Your task to perform on an android device: turn on location history Image 0: 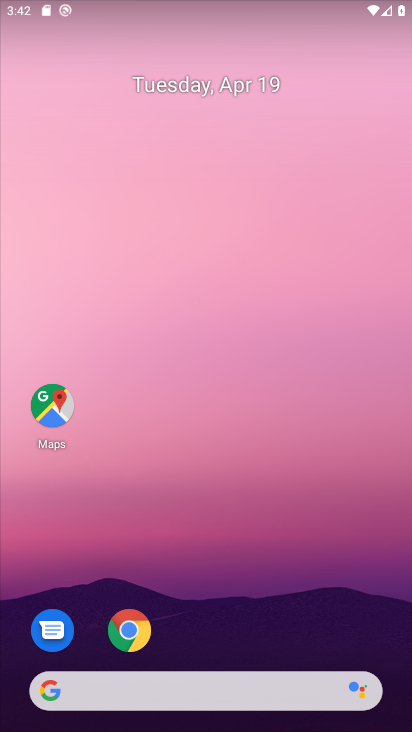
Step 0: drag from (292, 432) to (316, 140)
Your task to perform on an android device: turn on location history Image 1: 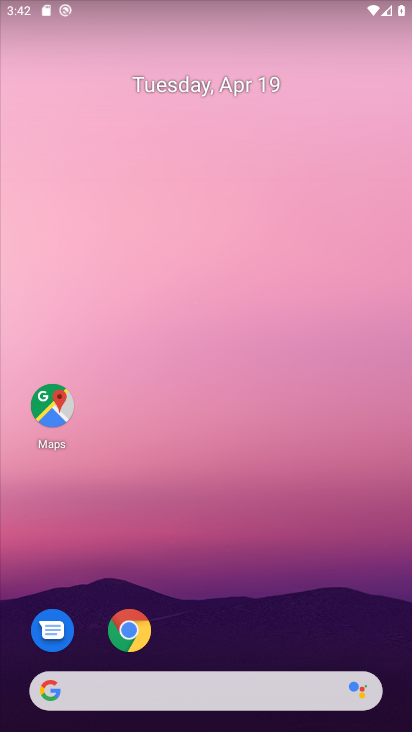
Step 1: drag from (290, 314) to (303, 168)
Your task to perform on an android device: turn on location history Image 2: 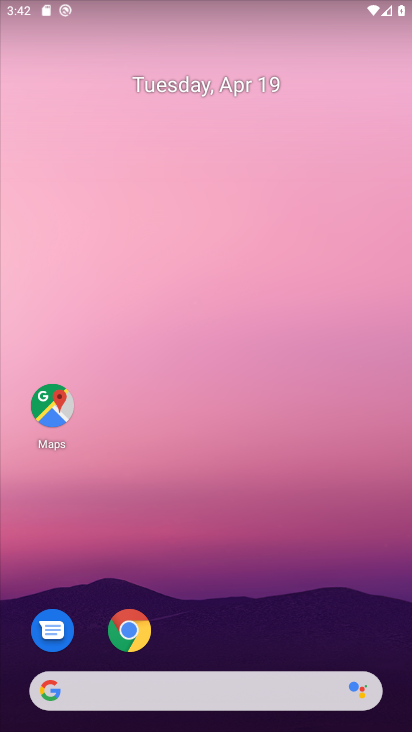
Step 2: drag from (318, 488) to (324, 156)
Your task to perform on an android device: turn on location history Image 3: 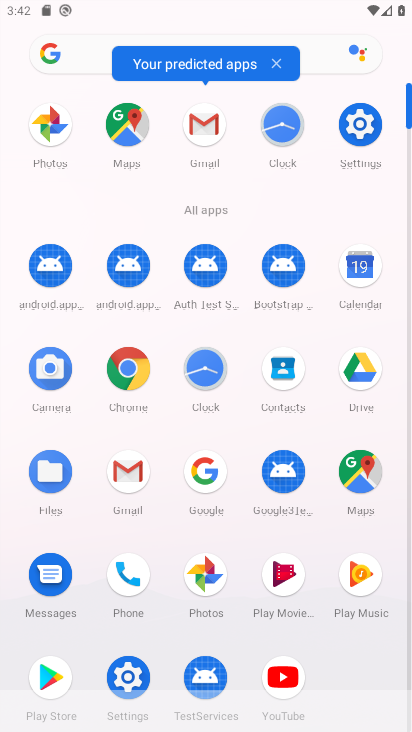
Step 3: click (361, 132)
Your task to perform on an android device: turn on location history Image 4: 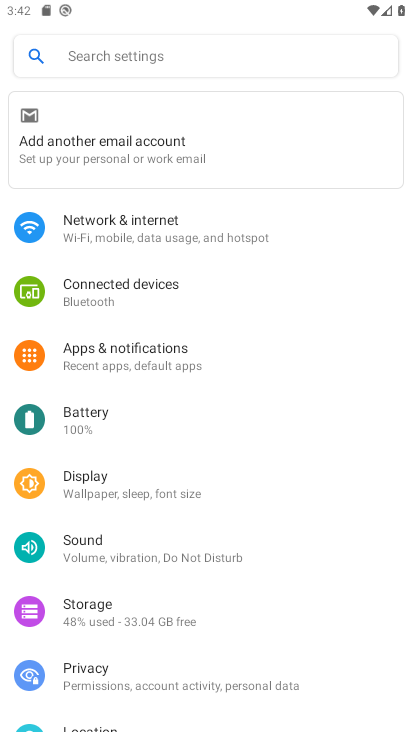
Step 4: drag from (167, 530) to (180, 314)
Your task to perform on an android device: turn on location history Image 5: 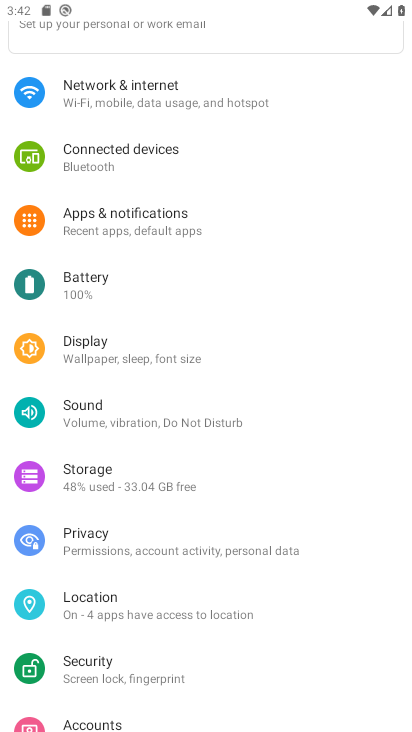
Step 5: click (102, 616)
Your task to perform on an android device: turn on location history Image 6: 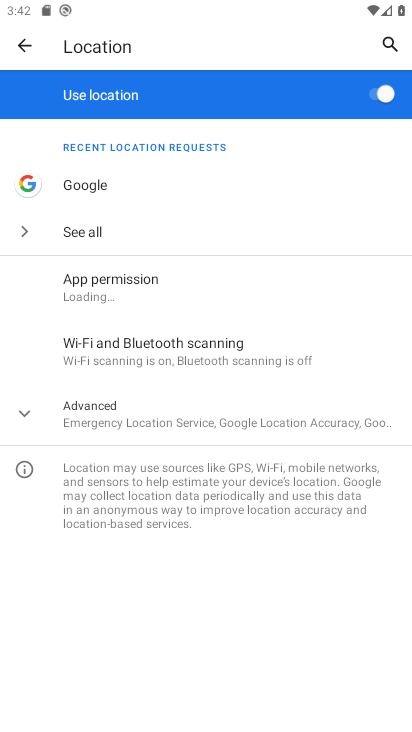
Step 6: click (32, 417)
Your task to perform on an android device: turn on location history Image 7: 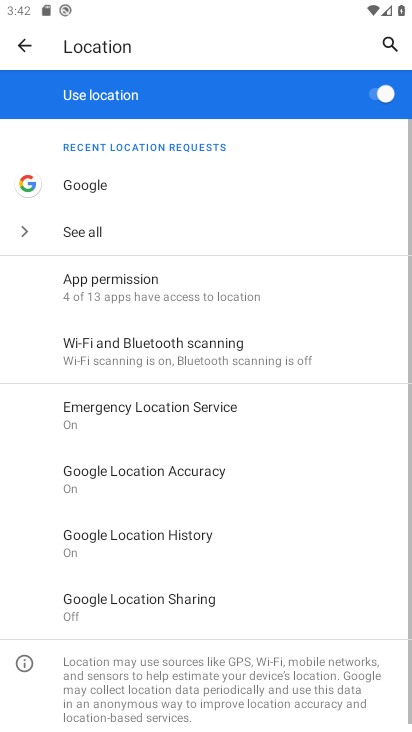
Step 7: click (187, 537)
Your task to perform on an android device: turn on location history Image 8: 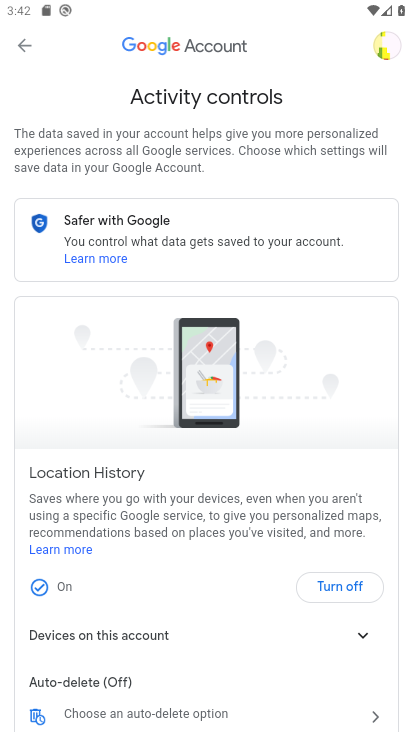
Step 8: task complete